Your task to perform on an android device: Search for lg ultragear on newegg.com, select the first entry, add it to the cart, then select checkout. Image 0: 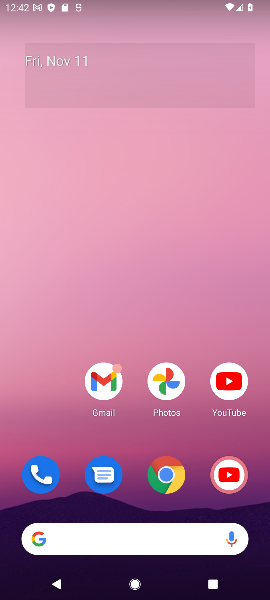
Step 0: drag from (97, 468) to (110, 68)
Your task to perform on an android device: Search for lg ultragear on newegg.com, select the first entry, add it to the cart, then select checkout. Image 1: 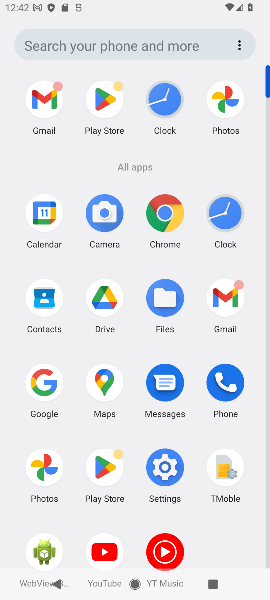
Step 1: click (160, 225)
Your task to perform on an android device: Search for lg ultragear on newegg.com, select the first entry, add it to the cart, then select checkout. Image 2: 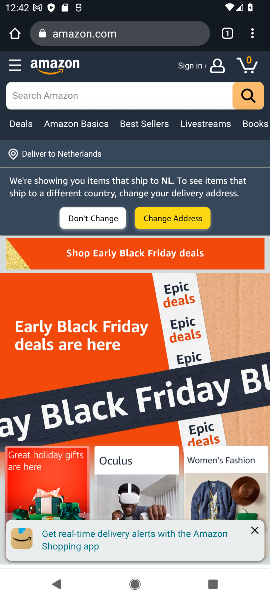
Step 2: click (107, 29)
Your task to perform on an android device: Search for lg ultragear on newegg.com, select the first entry, add it to the cart, then select checkout. Image 3: 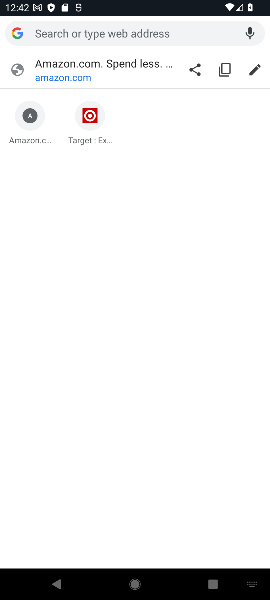
Step 3: type "newegg.com"
Your task to perform on an android device: Search for lg ultragear on newegg.com, select the first entry, add it to the cart, then select checkout. Image 4: 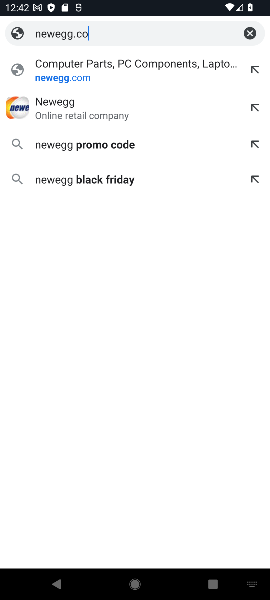
Step 4: press enter
Your task to perform on an android device: Search for lg ultragear on newegg.com, select the first entry, add it to the cart, then select checkout. Image 5: 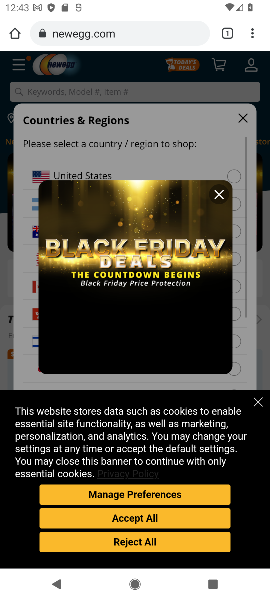
Step 5: click (218, 195)
Your task to perform on an android device: Search for lg ultragear on newegg.com, select the first entry, add it to the cart, then select checkout. Image 6: 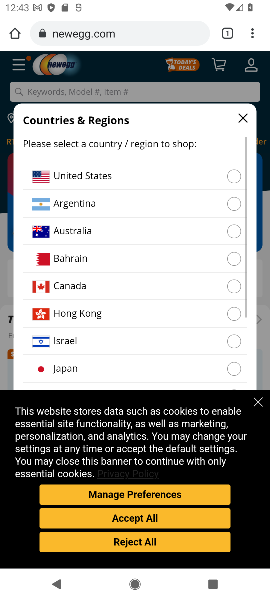
Step 6: click (134, 520)
Your task to perform on an android device: Search for lg ultragear on newegg.com, select the first entry, add it to the cart, then select checkout. Image 7: 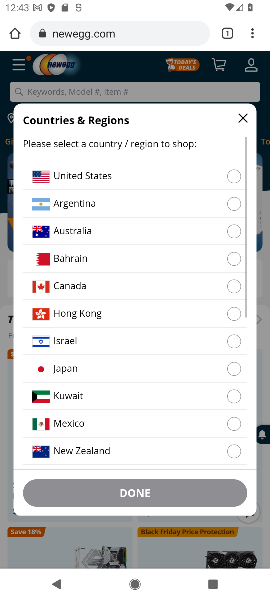
Step 7: click (74, 174)
Your task to perform on an android device: Search for lg ultragear on newegg.com, select the first entry, add it to the cart, then select checkout. Image 8: 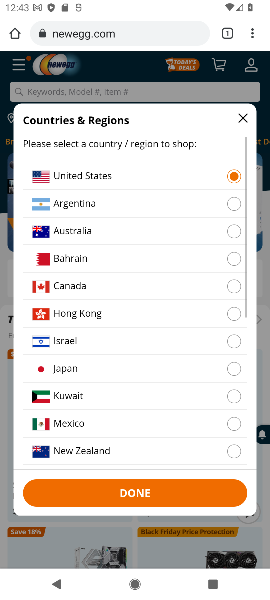
Step 8: click (128, 494)
Your task to perform on an android device: Search for lg ultragear on newegg.com, select the first entry, add it to the cart, then select checkout. Image 9: 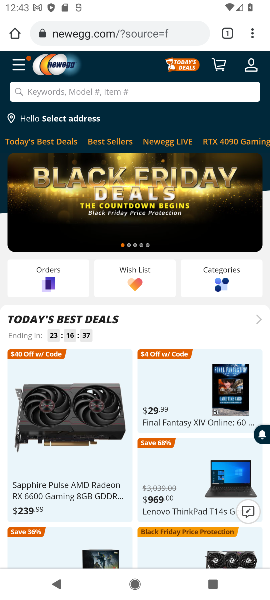
Step 9: click (63, 93)
Your task to perform on an android device: Search for lg ultragear on newegg.com, select the first entry, add it to the cart, then select checkout. Image 10: 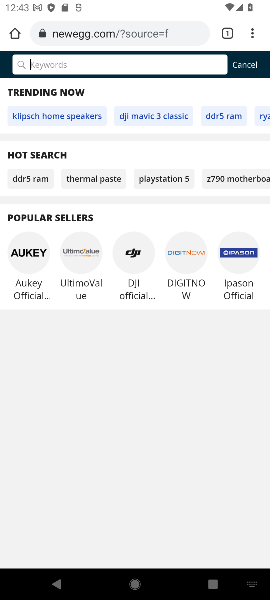
Step 10: type "newegg.com"
Your task to perform on an android device: Search for lg ultragear on newegg.com, select the first entry, add it to the cart, then select checkout. Image 11: 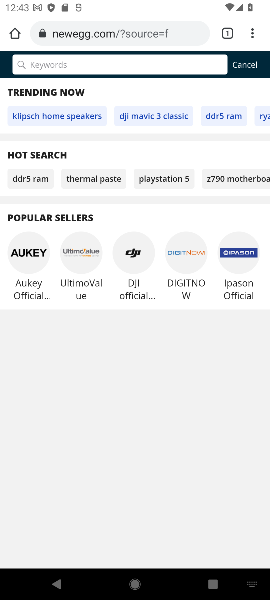
Step 11: press enter
Your task to perform on an android device: Search for lg ultragear on newegg.com, select the first entry, add it to the cart, then select checkout. Image 12: 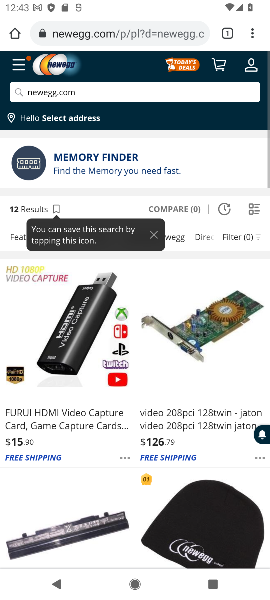
Step 12: click (8, 422)
Your task to perform on an android device: Search for lg ultragear on newegg.com, select the first entry, add it to the cart, then select checkout. Image 13: 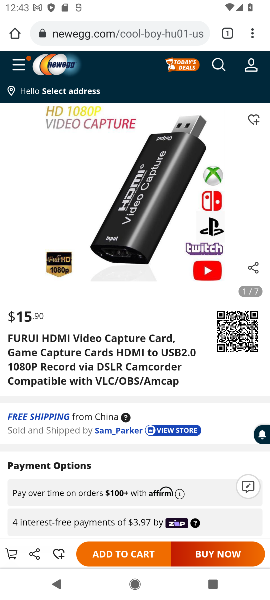
Step 13: click (122, 559)
Your task to perform on an android device: Search for lg ultragear on newegg.com, select the first entry, add it to the cart, then select checkout. Image 14: 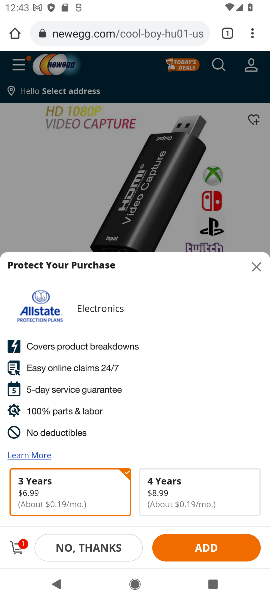
Step 14: click (229, 545)
Your task to perform on an android device: Search for lg ultragear on newegg.com, select the first entry, add it to the cart, then select checkout. Image 15: 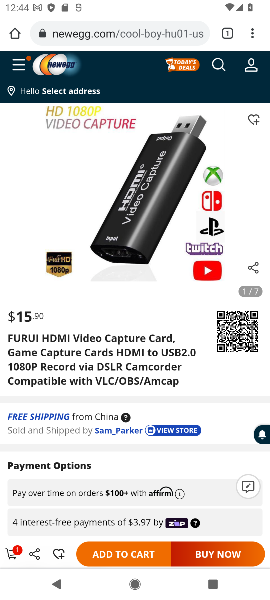
Step 15: drag from (207, 181) to (215, 394)
Your task to perform on an android device: Search for lg ultragear on newegg.com, select the first entry, add it to the cart, then select checkout. Image 16: 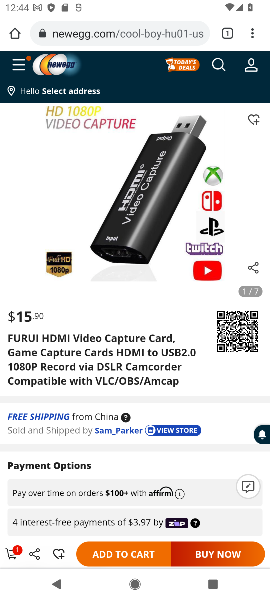
Step 16: press back button
Your task to perform on an android device: Search for lg ultragear on newegg.com, select the first entry, add it to the cart, then select checkout. Image 17: 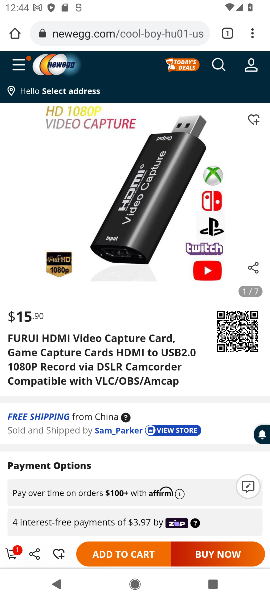
Step 17: click (10, 550)
Your task to perform on an android device: Search for lg ultragear on newegg.com, select the first entry, add it to the cart, then select checkout. Image 18: 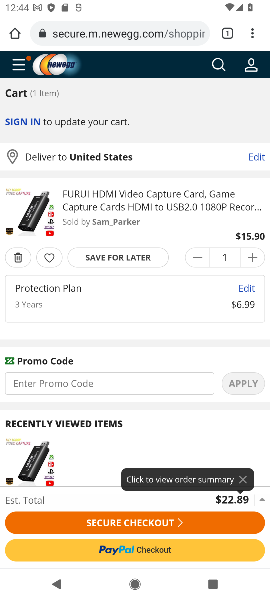
Step 18: drag from (151, 461) to (176, 247)
Your task to perform on an android device: Search for lg ultragear on newegg.com, select the first entry, add it to the cart, then select checkout. Image 19: 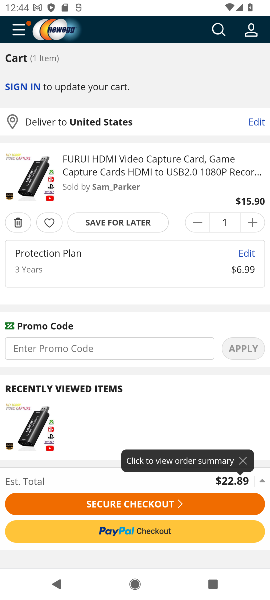
Step 19: click (125, 509)
Your task to perform on an android device: Search for lg ultragear on newegg.com, select the first entry, add it to the cart, then select checkout. Image 20: 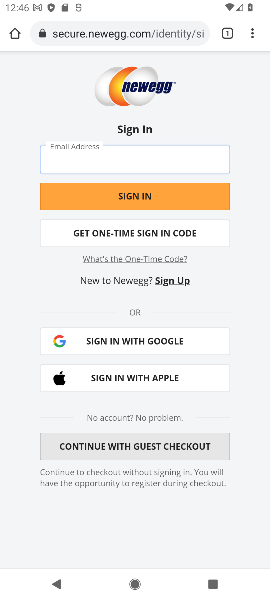
Step 20: task complete